Your task to perform on an android device: When is my next appointment? Image 0: 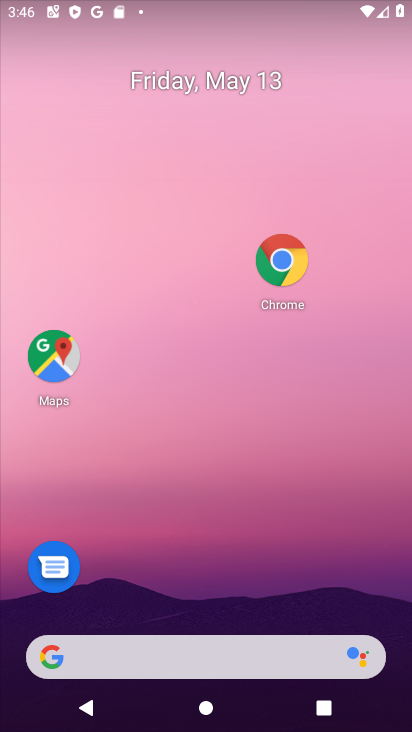
Step 0: drag from (235, 669) to (200, 40)
Your task to perform on an android device: When is my next appointment? Image 1: 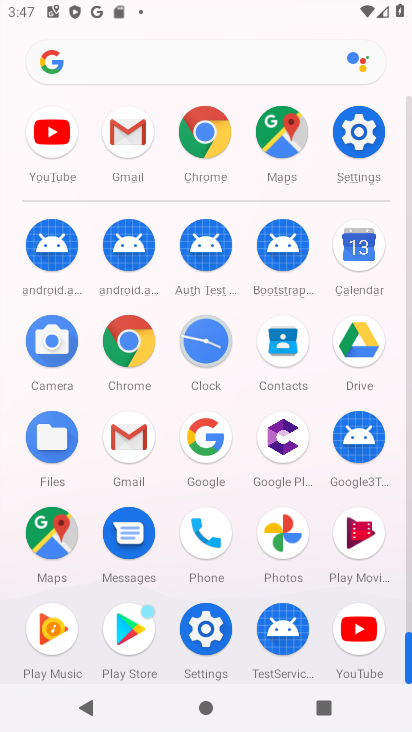
Step 1: click (355, 245)
Your task to perform on an android device: When is my next appointment? Image 2: 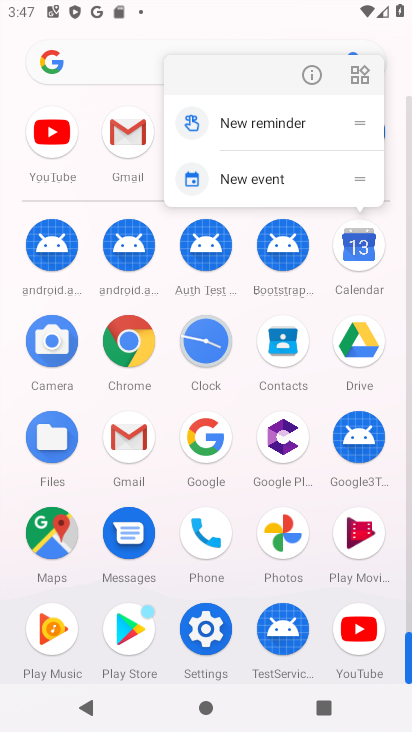
Step 2: click (354, 246)
Your task to perform on an android device: When is my next appointment? Image 3: 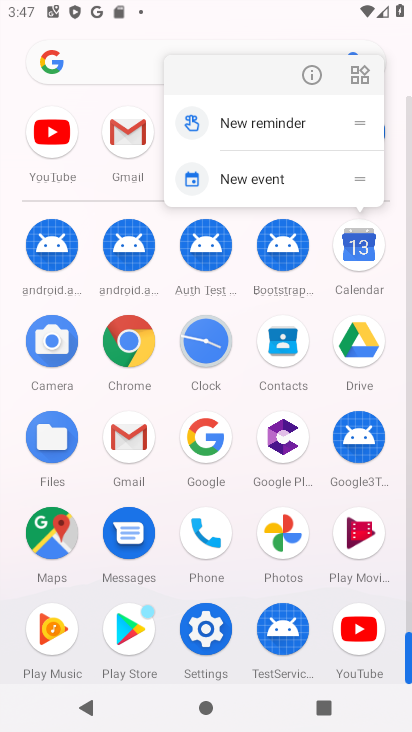
Step 3: click (357, 250)
Your task to perform on an android device: When is my next appointment? Image 4: 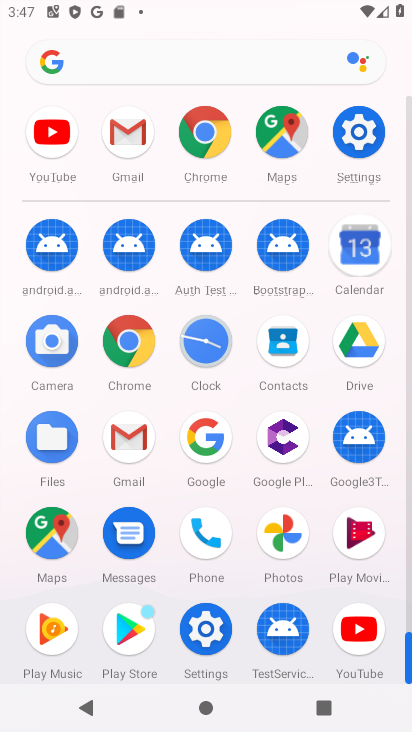
Step 4: click (357, 250)
Your task to perform on an android device: When is my next appointment? Image 5: 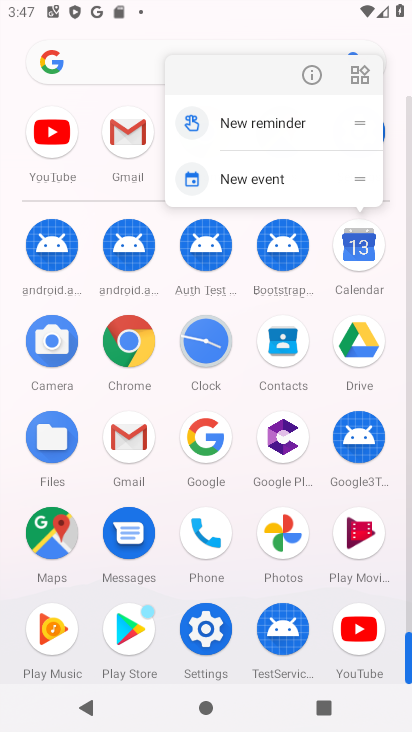
Step 5: click (357, 250)
Your task to perform on an android device: When is my next appointment? Image 6: 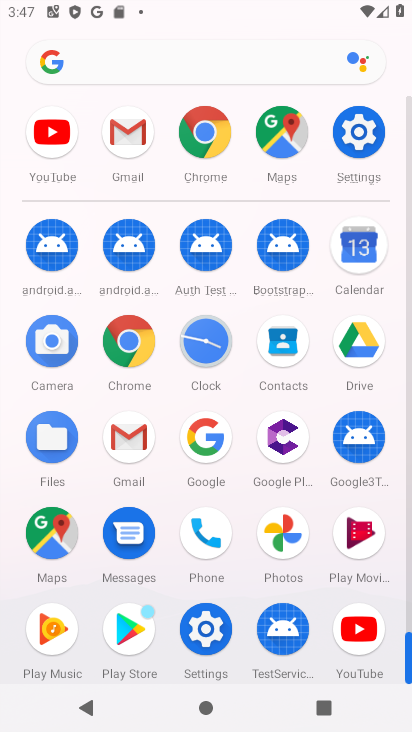
Step 6: click (357, 250)
Your task to perform on an android device: When is my next appointment? Image 7: 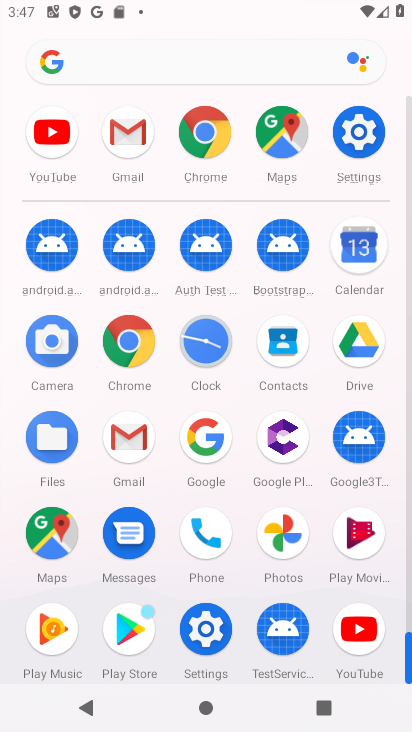
Step 7: click (357, 252)
Your task to perform on an android device: When is my next appointment? Image 8: 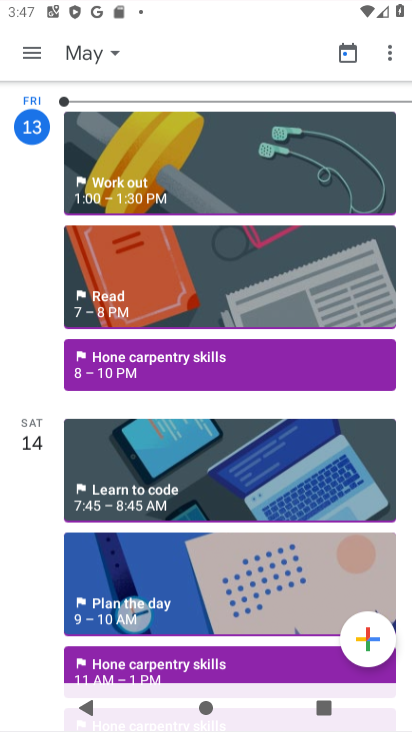
Step 8: click (358, 251)
Your task to perform on an android device: When is my next appointment? Image 9: 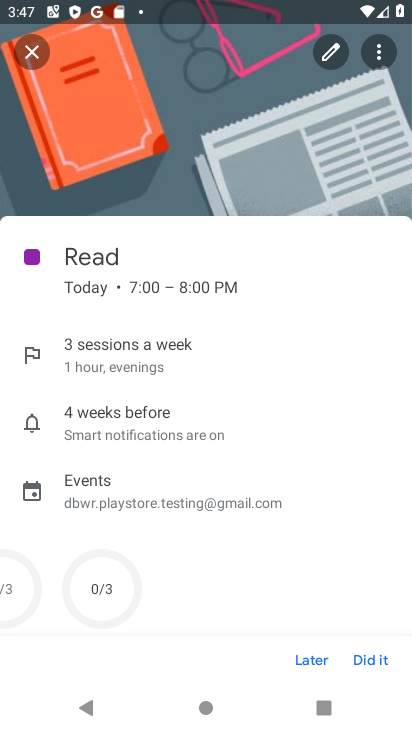
Step 9: task complete